Your task to perform on an android device: Is it going to rain this weekend? Image 0: 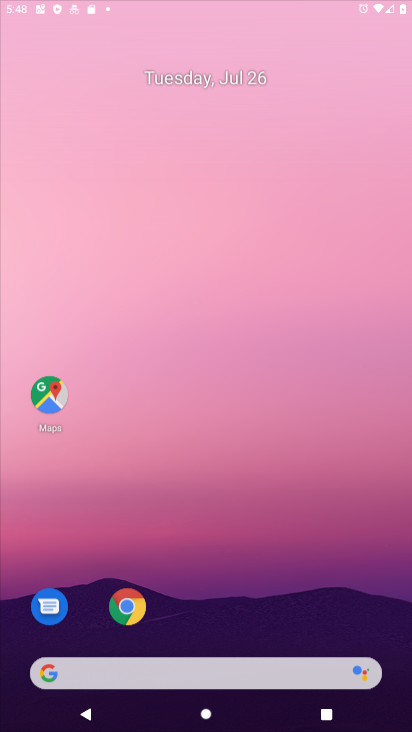
Step 0: press home button
Your task to perform on an android device: Is it going to rain this weekend? Image 1: 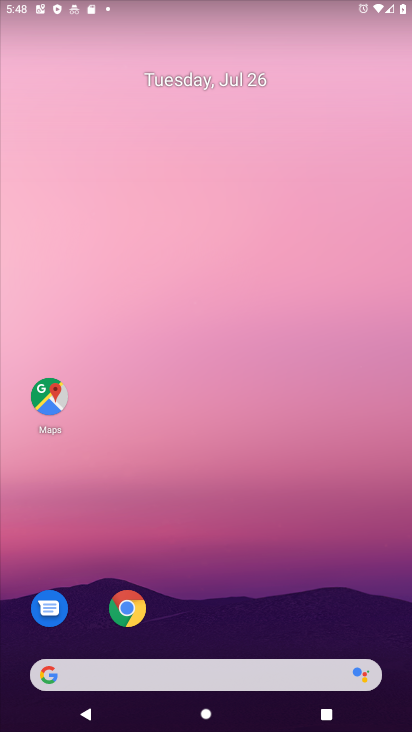
Step 1: click (49, 683)
Your task to perform on an android device: Is it going to rain this weekend? Image 2: 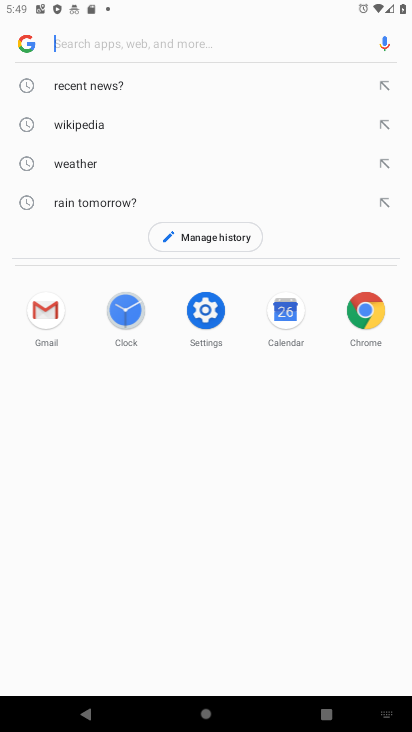
Step 2: type " rain this weekend?"
Your task to perform on an android device: Is it going to rain this weekend? Image 3: 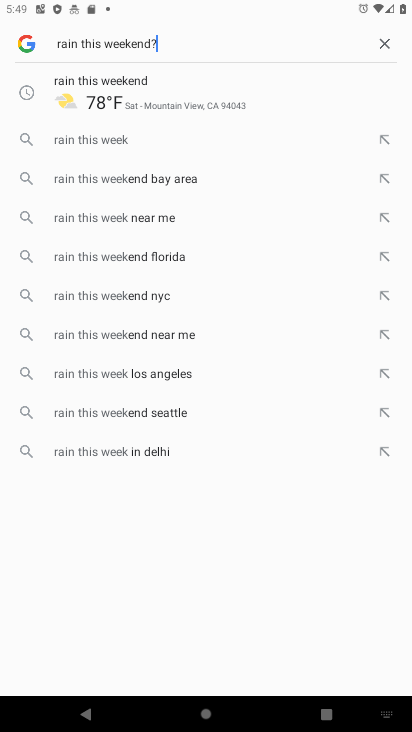
Step 3: press enter
Your task to perform on an android device: Is it going to rain this weekend? Image 4: 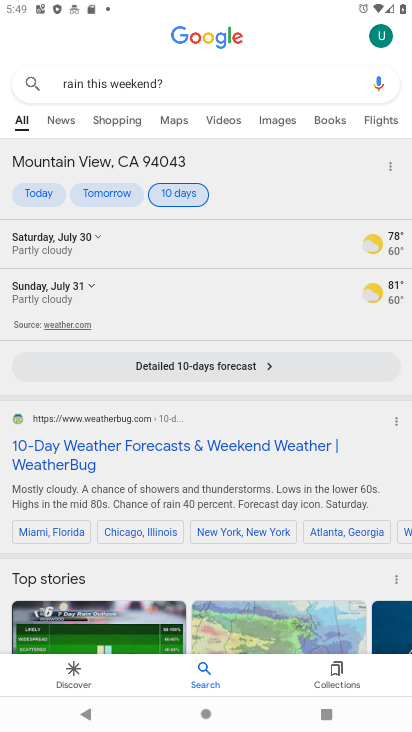
Step 4: task complete